Your task to perform on an android device: Go to eBay Image 0: 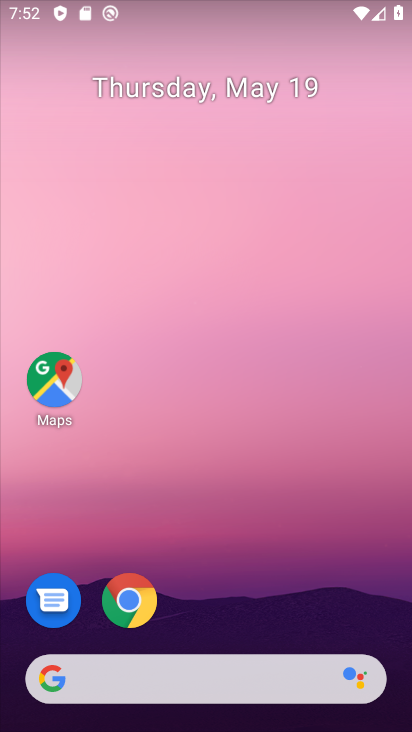
Step 0: click (129, 592)
Your task to perform on an android device: Go to eBay Image 1: 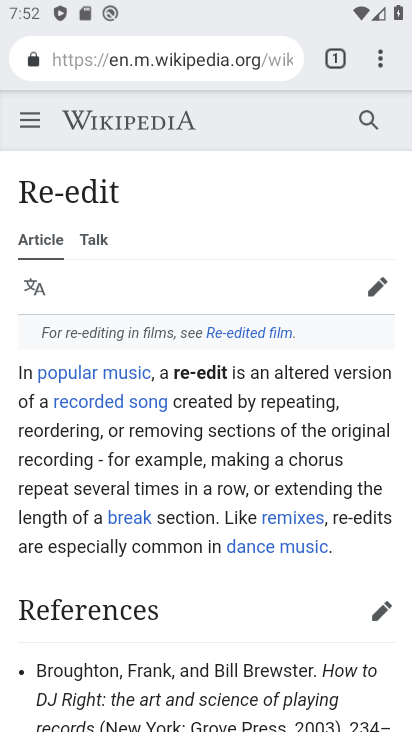
Step 1: click (231, 56)
Your task to perform on an android device: Go to eBay Image 2: 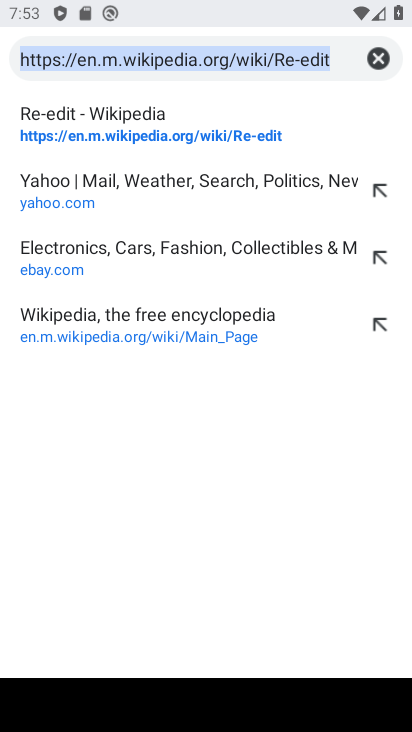
Step 2: type "ebay.com"
Your task to perform on an android device: Go to eBay Image 3: 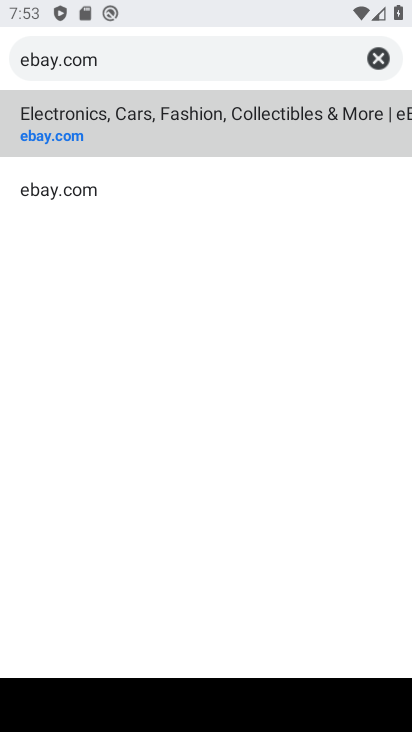
Step 3: click (129, 125)
Your task to perform on an android device: Go to eBay Image 4: 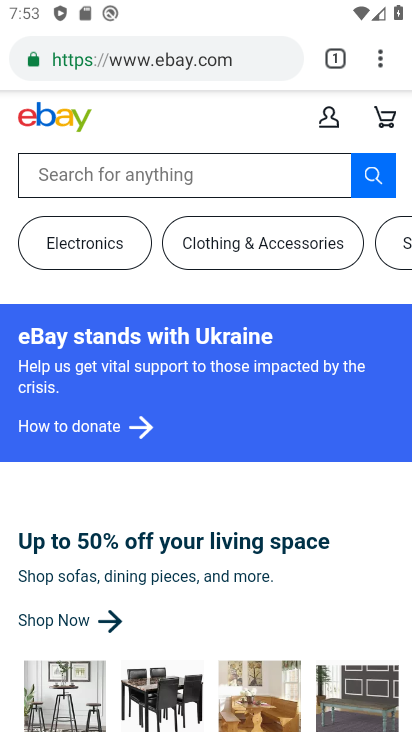
Step 4: task complete